Your task to perform on an android device: Go to network settings Image 0: 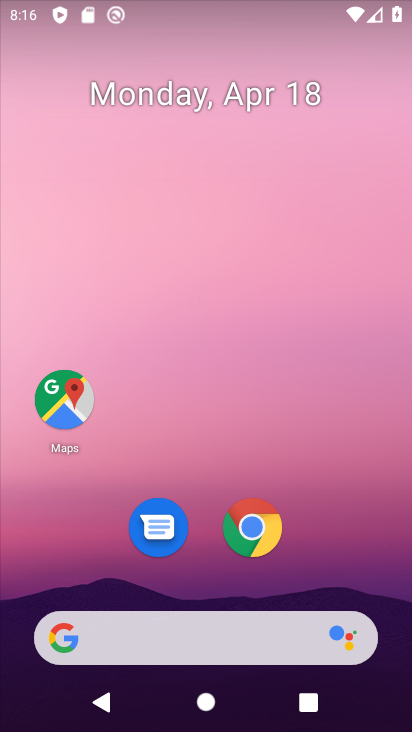
Step 0: drag from (180, 545) to (239, 103)
Your task to perform on an android device: Go to network settings Image 1: 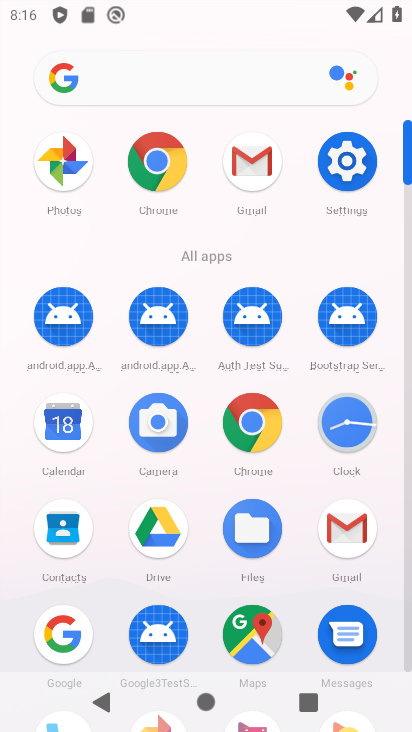
Step 1: click (341, 173)
Your task to perform on an android device: Go to network settings Image 2: 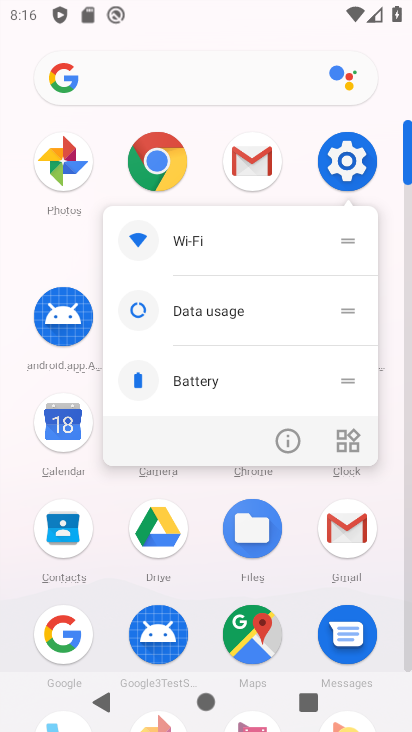
Step 2: click (347, 156)
Your task to perform on an android device: Go to network settings Image 3: 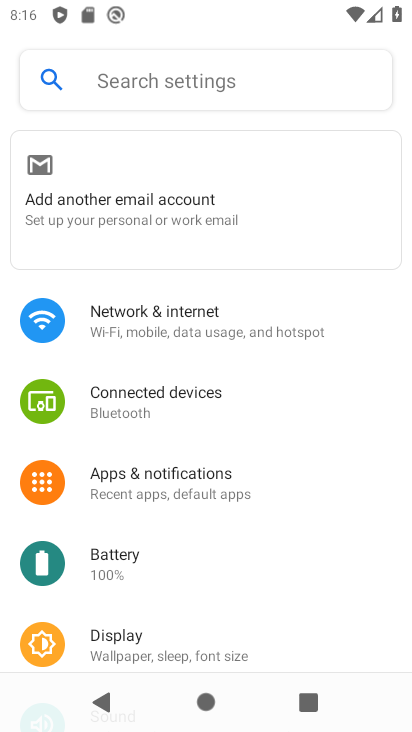
Step 3: click (236, 330)
Your task to perform on an android device: Go to network settings Image 4: 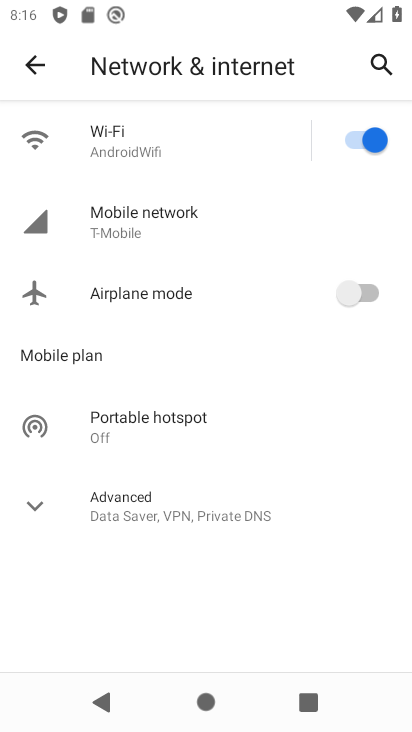
Step 4: click (217, 225)
Your task to perform on an android device: Go to network settings Image 5: 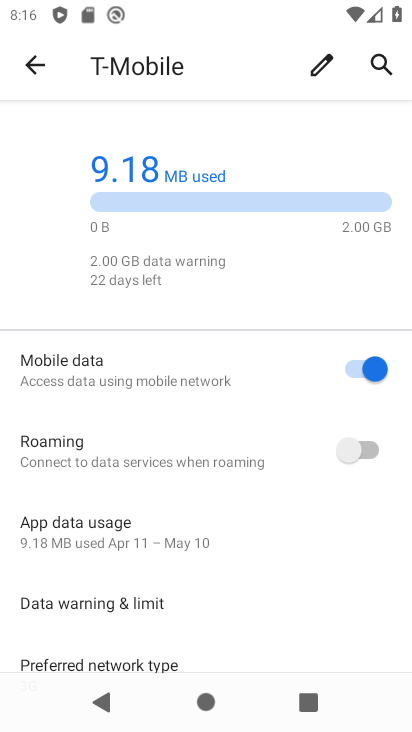
Step 5: drag from (211, 633) to (286, 297)
Your task to perform on an android device: Go to network settings Image 6: 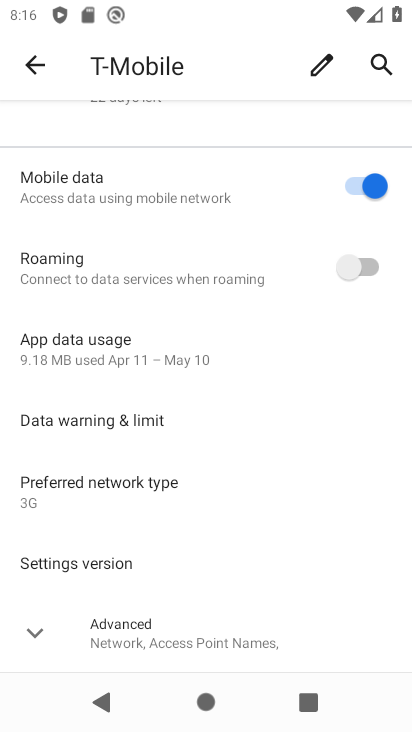
Step 6: click (206, 642)
Your task to perform on an android device: Go to network settings Image 7: 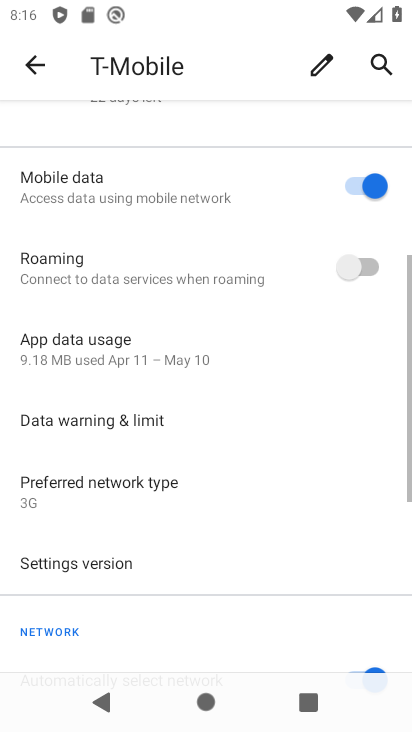
Step 7: task complete